Your task to perform on an android device: Go to battery settings Image 0: 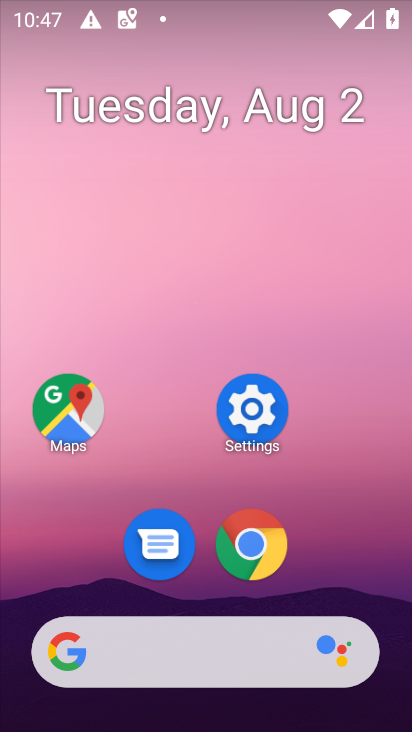
Step 0: click (253, 407)
Your task to perform on an android device: Go to battery settings Image 1: 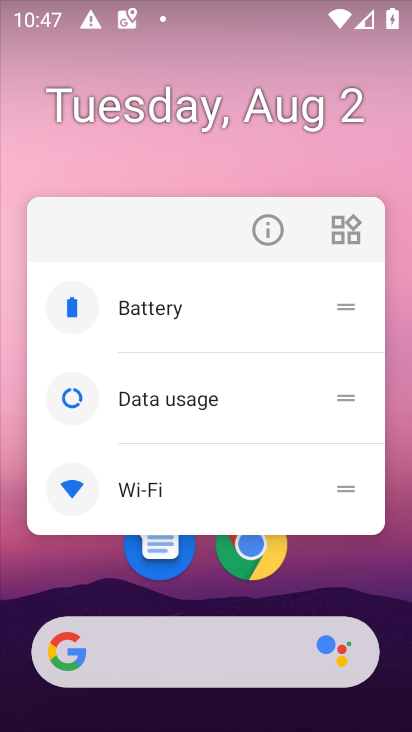
Step 1: click (387, 551)
Your task to perform on an android device: Go to battery settings Image 2: 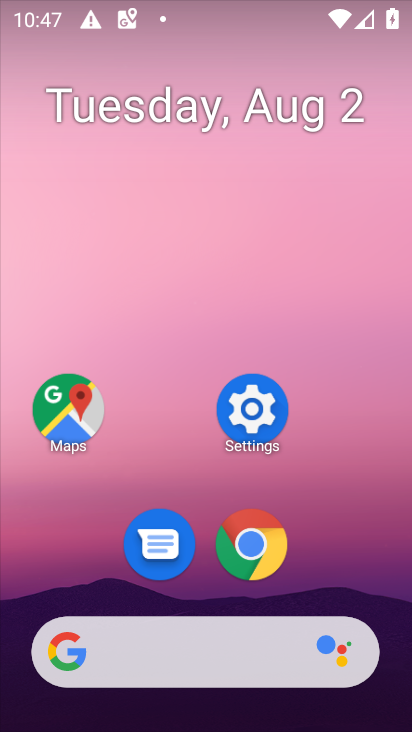
Step 2: click (246, 416)
Your task to perform on an android device: Go to battery settings Image 3: 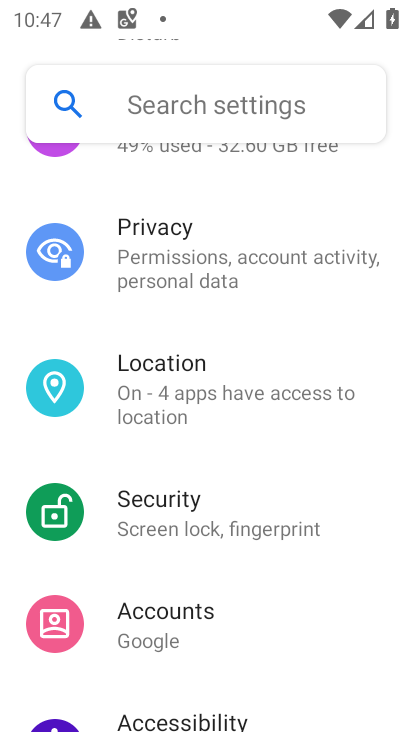
Step 3: drag from (281, 209) to (222, 575)
Your task to perform on an android device: Go to battery settings Image 4: 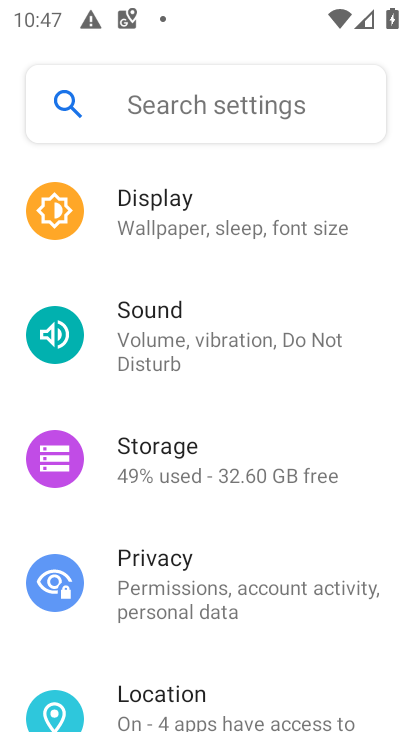
Step 4: drag from (259, 278) to (248, 462)
Your task to perform on an android device: Go to battery settings Image 5: 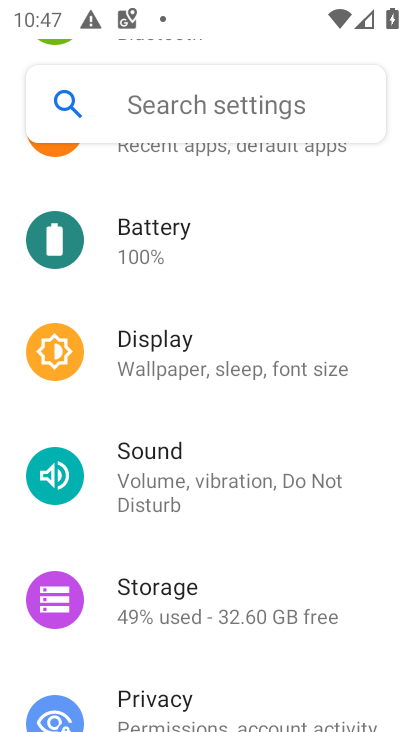
Step 5: click (166, 238)
Your task to perform on an android device: Go to battery settings Image 6: 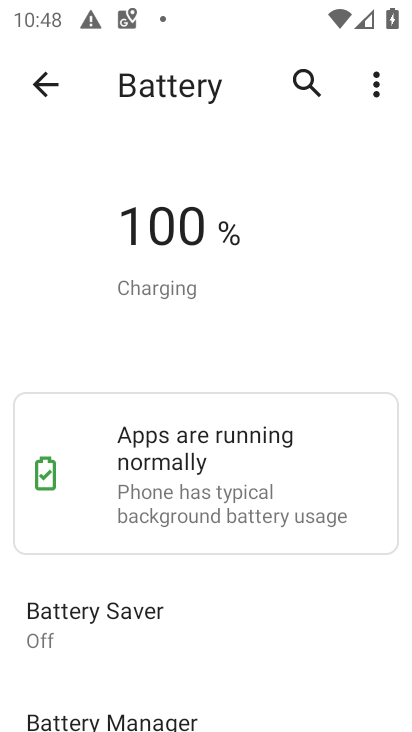
Step 6: task complete